Your task to perform on an android device: Turn off the flashlight Image 0: 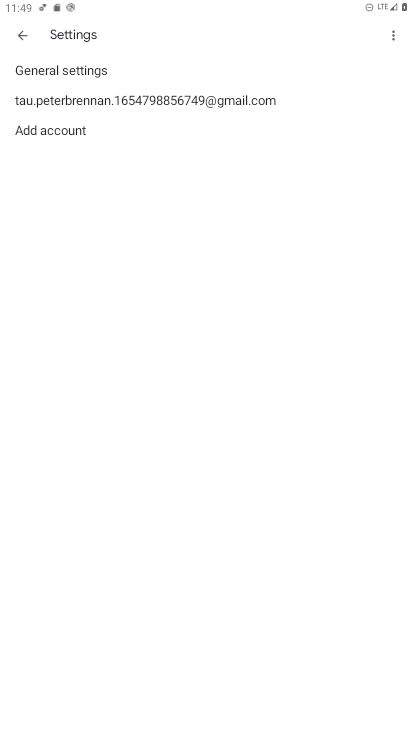
Step 0: press home button
Your task to perform on an android device: Turn off the flashlight Image 1: 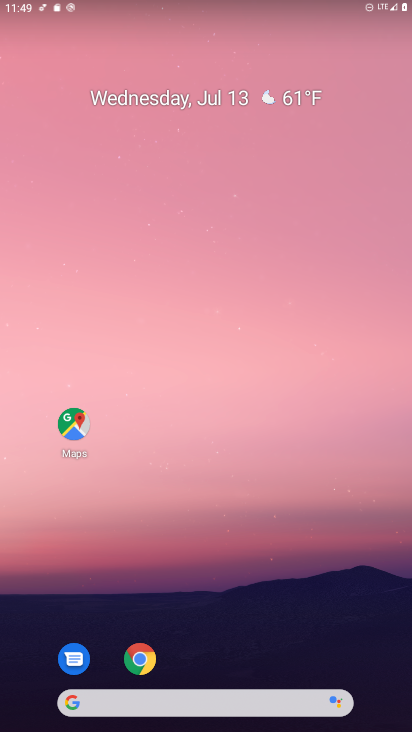
Step 1: drag from (224, 15) to (233, 323)
Your task to perform on an android device: Turn off the flashlight Image 2: 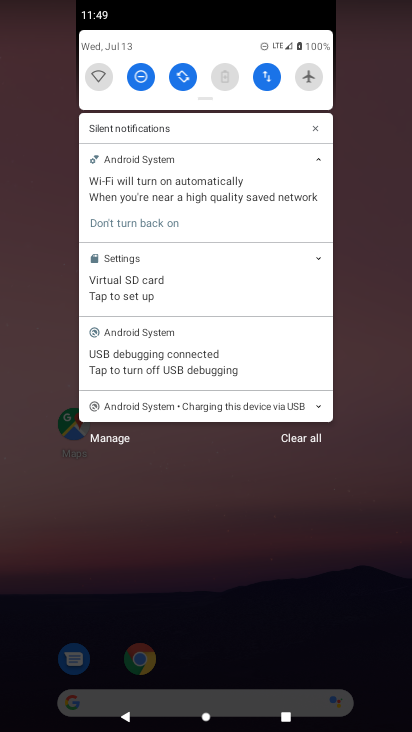
Step 2: drag from (200, 94) to (190, 352)
Your task to perform on an android device: Turn off the flashlight Image 3: 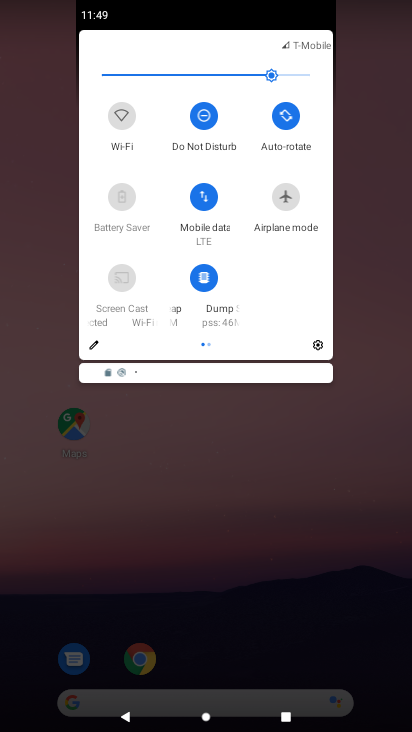
Step 3: click (89, 341)
Your task to perform on an android device: Turn off the flashlight Image 4: 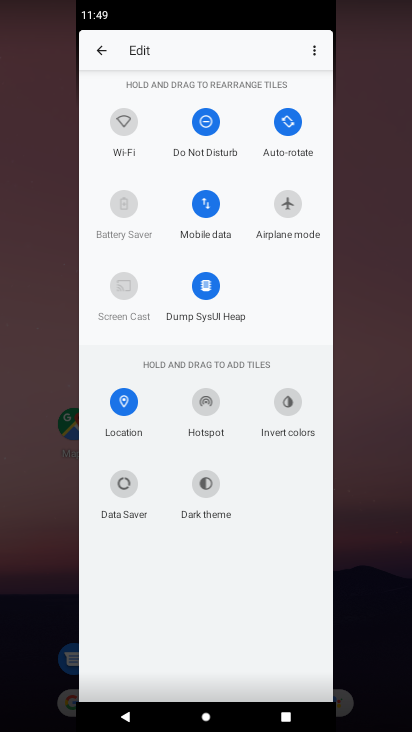
Step 4: task complete